Your task to perform on an android device: Show me popular videos on Youtube Image 0: 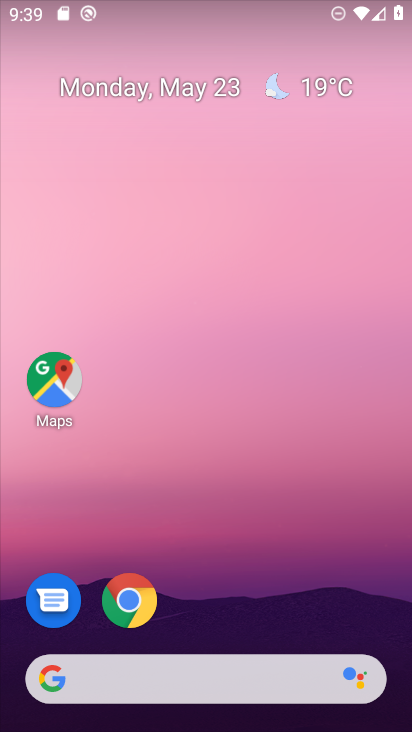
Step 0: drag from (104, 553) to (359, 118)
Your task to perform on an android device: Show me popular videos on Youtube Image 1: 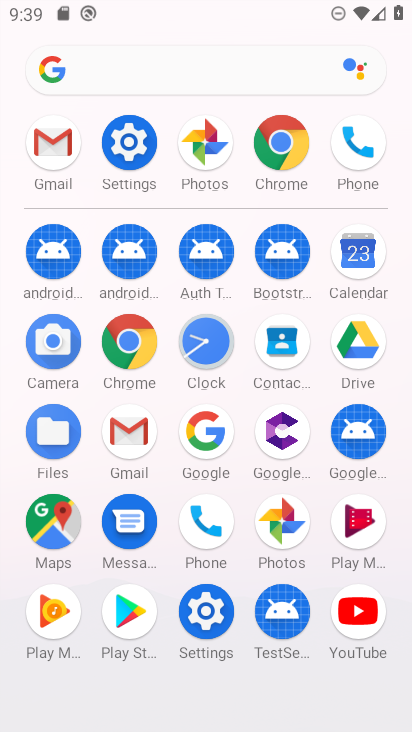
Step 1: click (357, 595)
Your task to perform on an android device: Show me popular videos on Youtube Image 2: 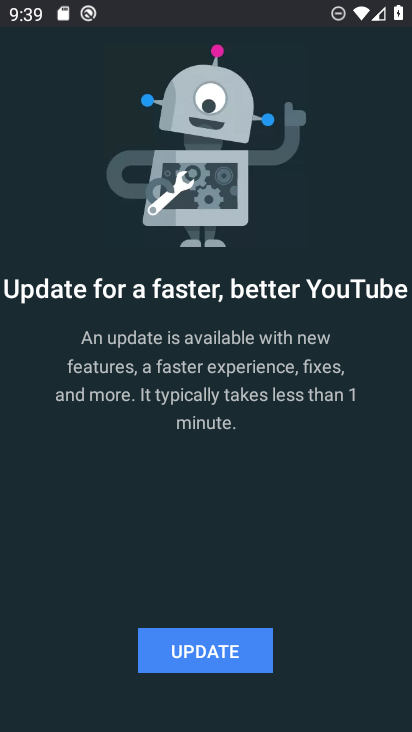
Step 2: task complete